Your task to perform on an android device: visit the assistant section in the google photos Image 0: 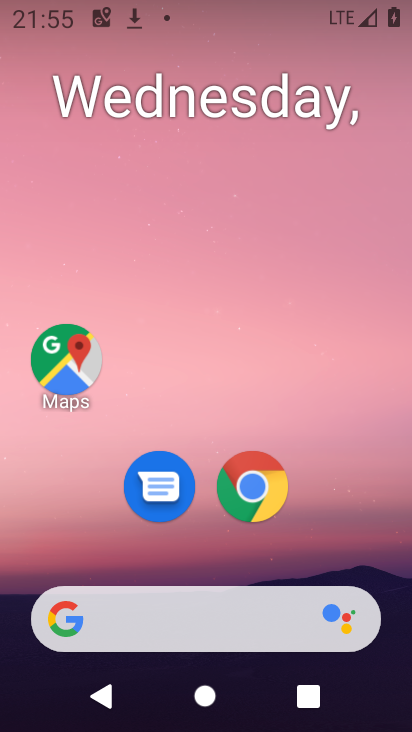
Step 0: drag from (182, 564) to (241, 17)
Your task to perform on an android device: visit the assistant section in the google photos Image 1: 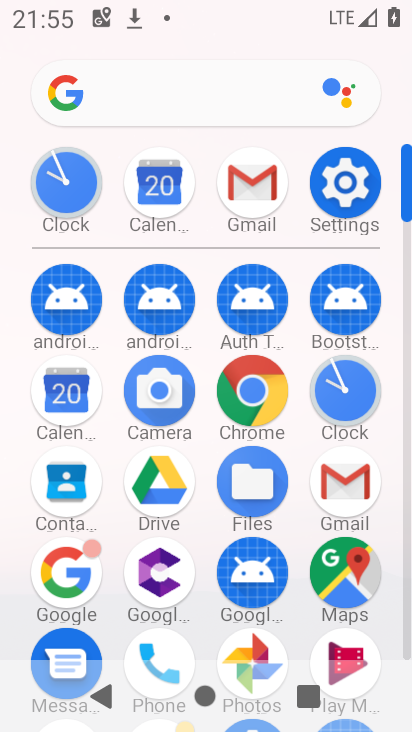
Step 1: click (254, 646)
Your task to perform on an android device: visit the assistant section in the google photos Image 2: 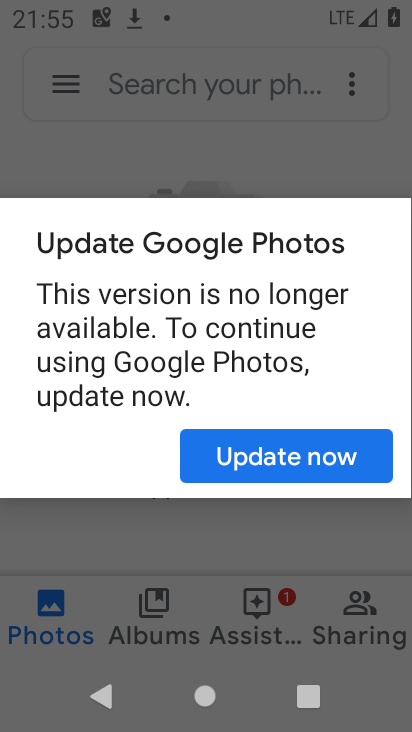
Step 2: click (268, 473)
Your task to perform on an android device: visit the assistant section in the google photos Image 3: 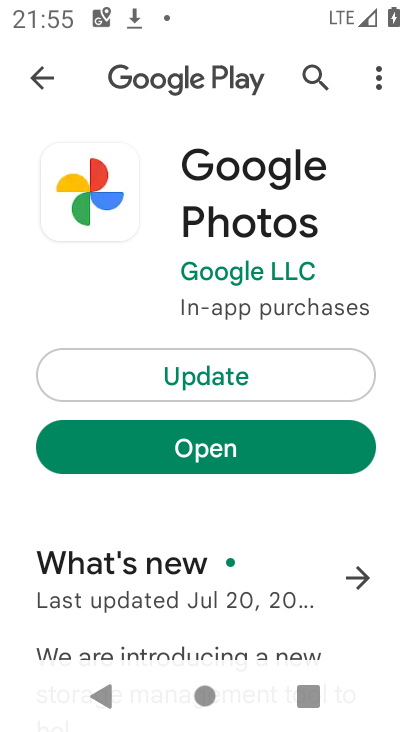
Step 3: press back button
Your task to perform on an android device: visit the assistant section in the google photos Image 4: 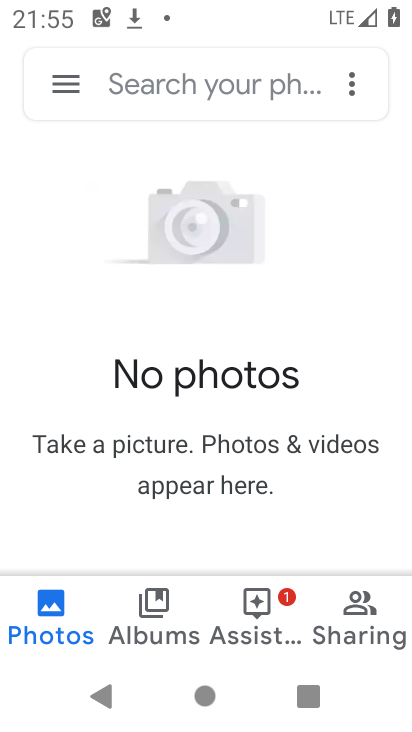
Step 4: click (278, 616)
Your task to perform on an android device: visit the assistant section in the google photos Image 5: 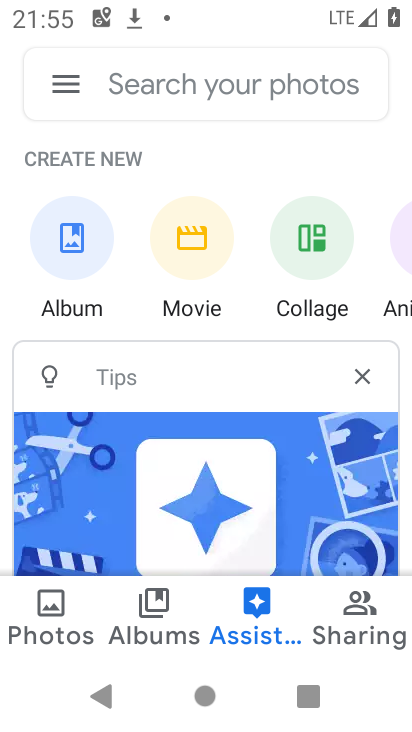
Step 5: task complete